Your task to perform on an android device: Open calendar and show me the fourth week of next month Image 0: 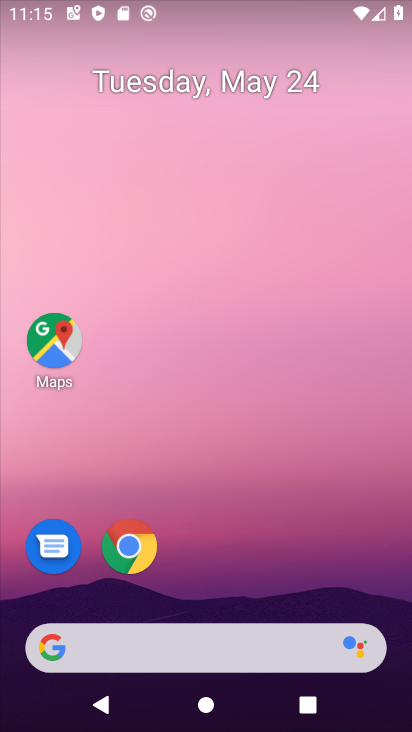
Step 0: click (257, 594)
Your task to perform on an android device: Open calendar and show me the fourth week of next month Image 1: 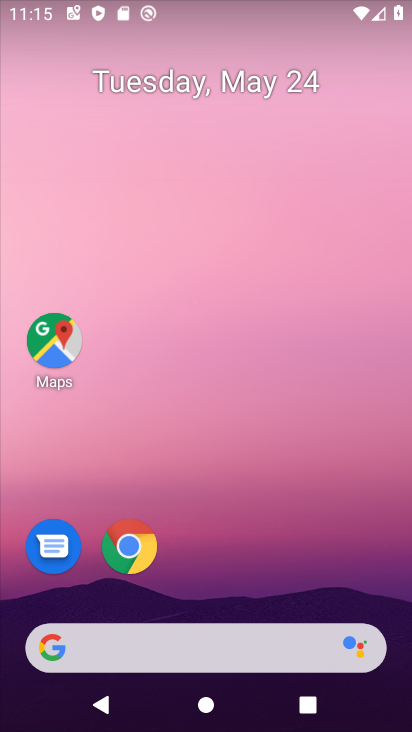
Step 1: drag from (222, 585) to (145, 143)
Your task to perform on an android device: Open calendar and show me the fourth week of next month Image 2: 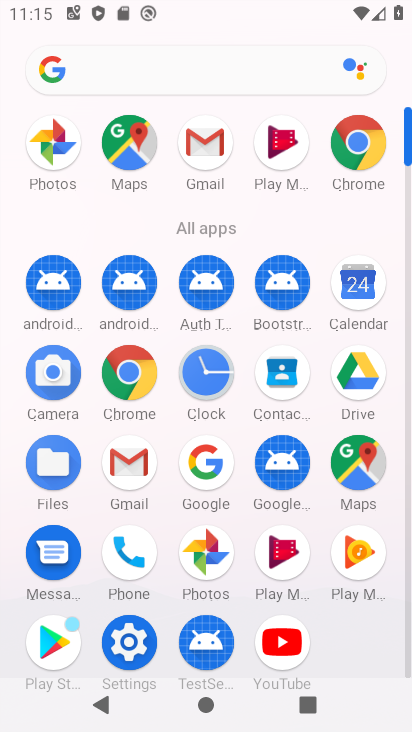
Step 2: click (360, 284)
Your task to perform on an android device: Open calendar and show me the fourth week of next month Image 3: 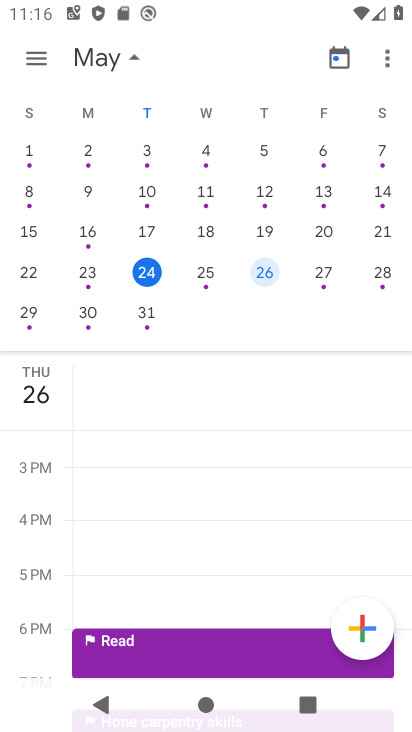
Step 3: click (37, 67)
Your task to perform on an android device: Open calendar and show me the fourth week of next month Image 4: 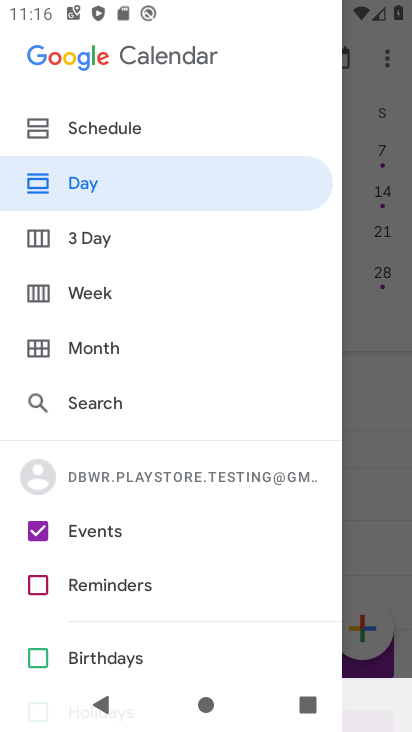
Step 4: click (123, 303)
Your task to perform on an android device: Open calendar and show me the fourth week of next month Image 5: 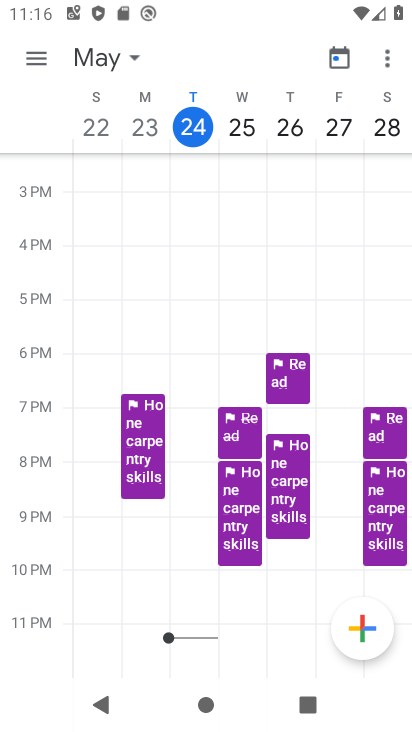
Step 5: click (134, 46)
Your task to perform on an android device: Open calendar and show me the fourth week of next month Image 6: 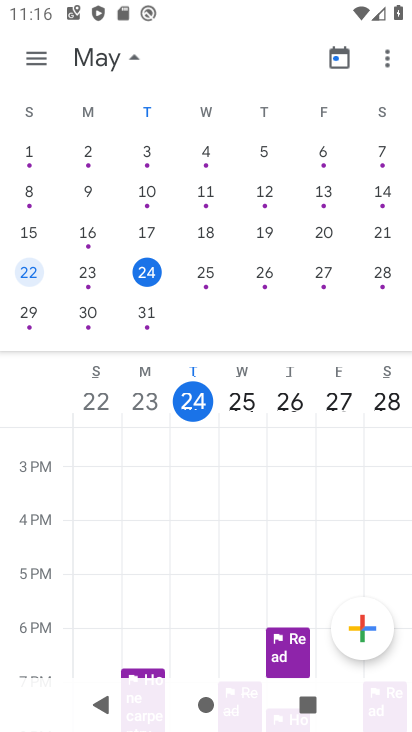
Step 6: drag from (407, 203) to (11, 197)
Your task to perform on an android device: Open calendar and show me the fourth week of next month Image 7: 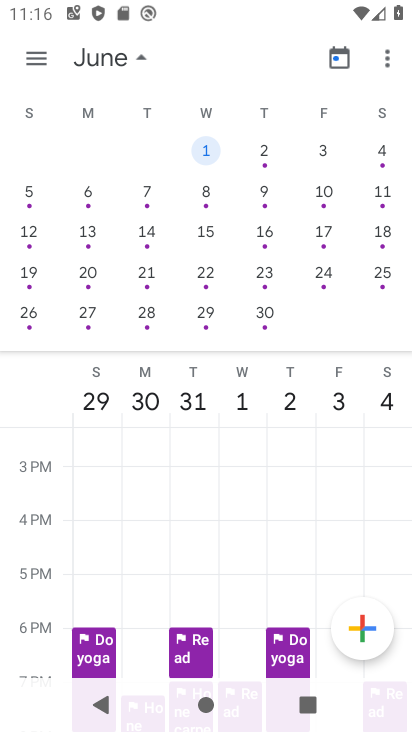
Step 7: click (146, 278)
Your task to perform on an android device: Open calendar and show me the fourth week of next month Image 8: 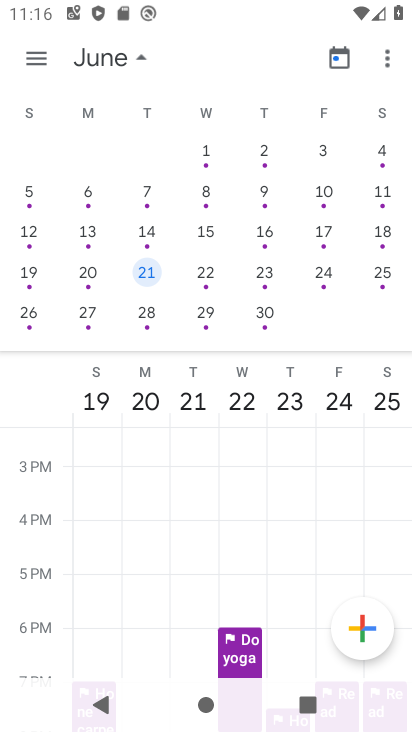
Step 8: task complete